Your task to perform on an android device: open a bookmark in the chrome app Image 0: 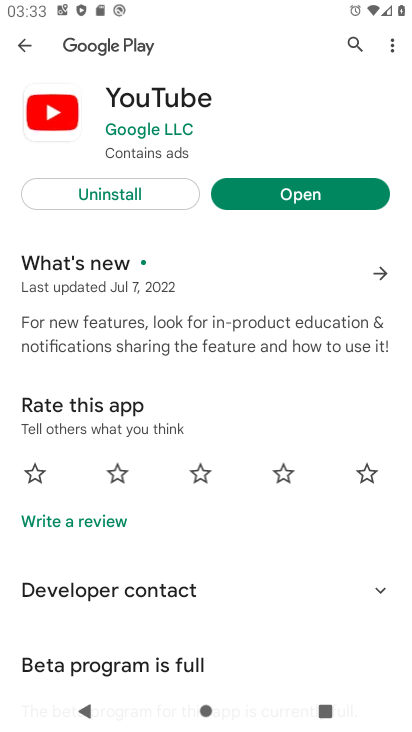
Step 0: press home button
Your task to perform on an android device: open a bookmark in the chrome app Image 1: 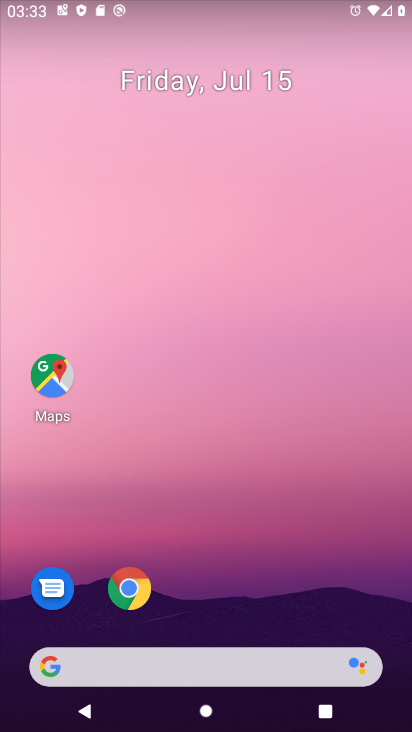
Step 1: click (128, 590)
Your task to perform on an android device: open a bookmark in the chrome app Image 2: 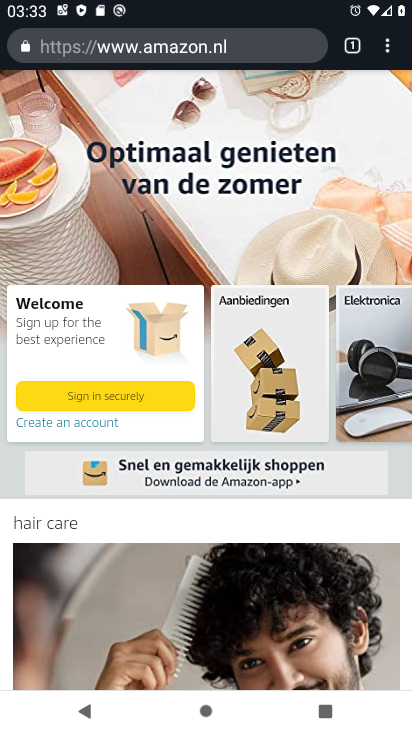
Step 2: click (388, 49)
Your task to perform on an android device: open a bookmark in the chrome app Image 3: 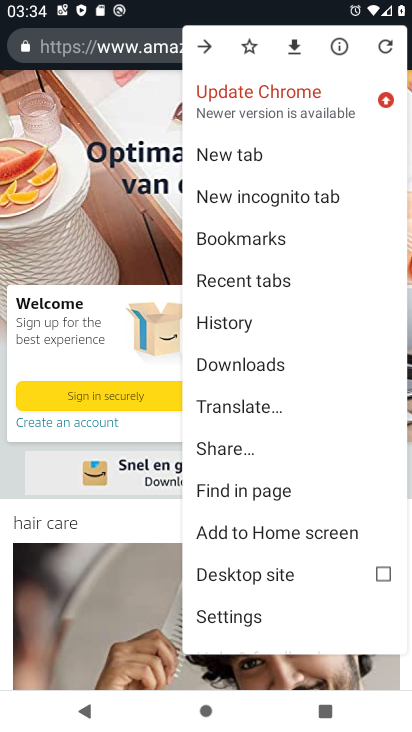
Step 3: click (248, 240)
Your task to perform on an android device: open a bookmark in the chrome app Image 4: 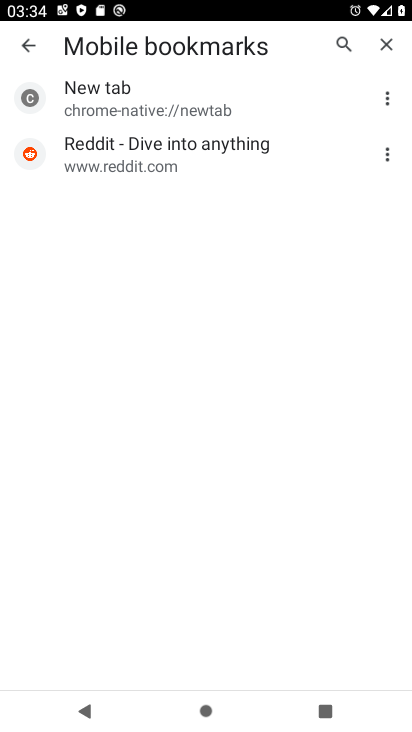
Step 4: task complete